Your task to perform on an android device: turn off translation in the chrome app Image 0: 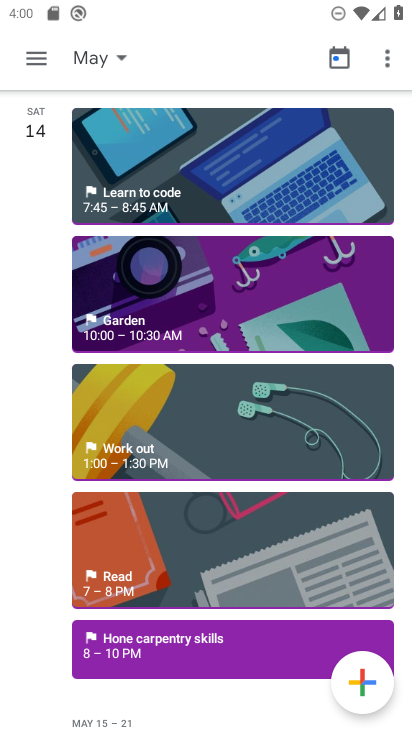
Step 0: press back button
Your task to perform on an android device: turn off translation in the chrome app Image 1: 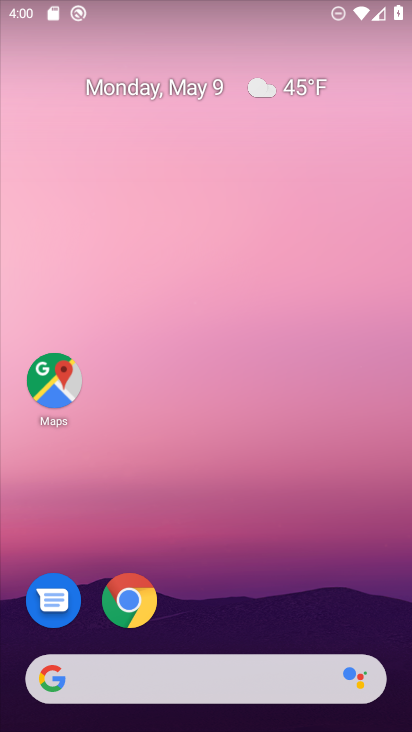
Step 1: drag from (287, 617) to (231, 26)
Your task to perform on an android device: turn off translation in the chrome app Image 2: 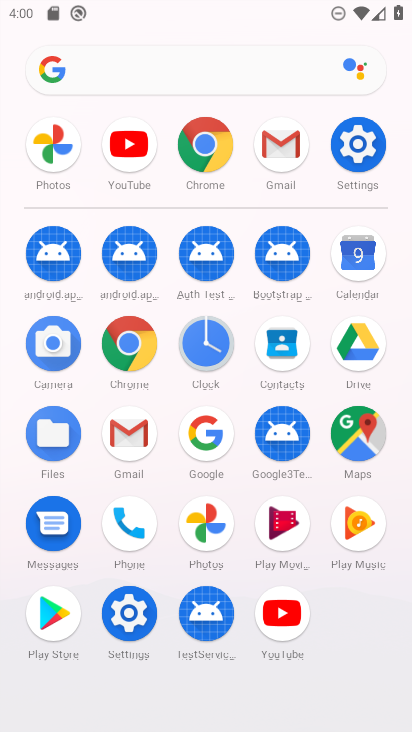
Step 2: click (203, 144)
Your task to perform on an android device: turn off translation in the chrome app Image 3: 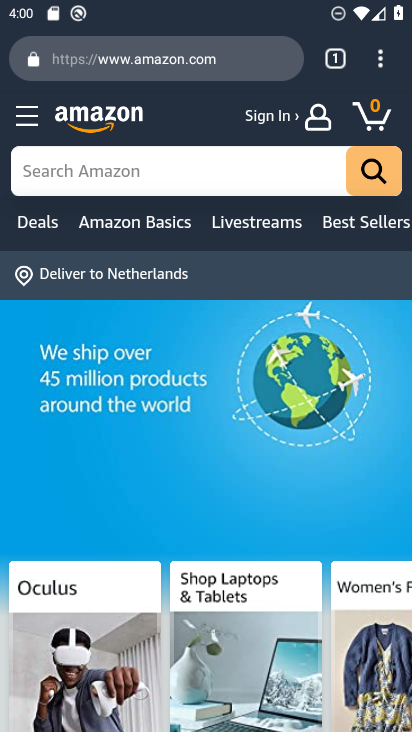
Step 3: drag from (378, 56) to (171, 621)
Your task to perform on an android device: turn off translation in the chrome app Image 4: 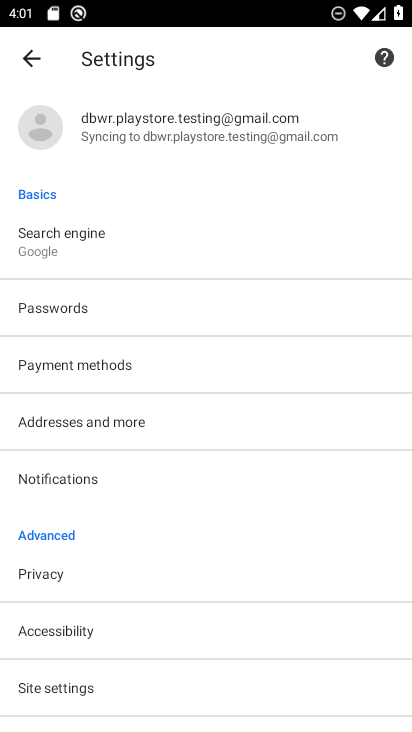
Step 4: drag from (158, 678) to (188, 271)
Your task to perform on an android device: turn off translation in the chrome app Image 5: 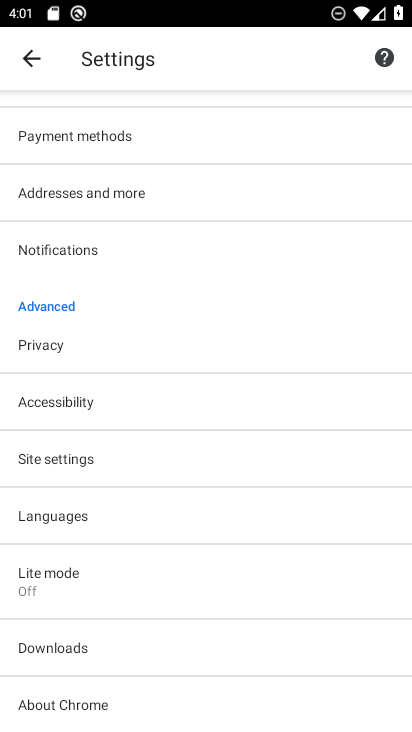
Step 5: click (50, 511)
Your task to perform on an android device: turn off translation in the chrome app Image 6: 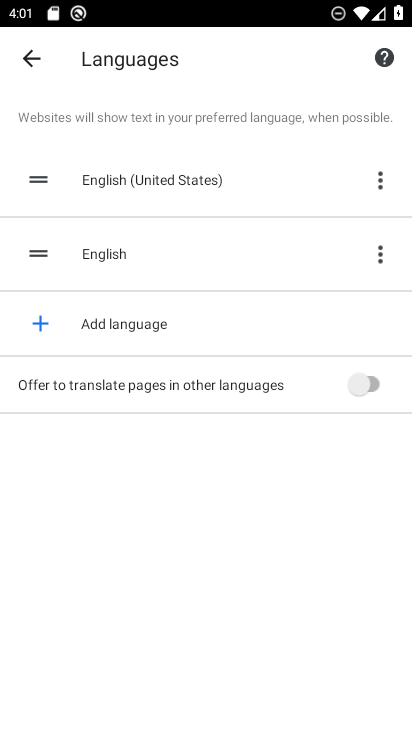
Step 6: task complete